Your task to perform on an android device: check google app version Image 0: 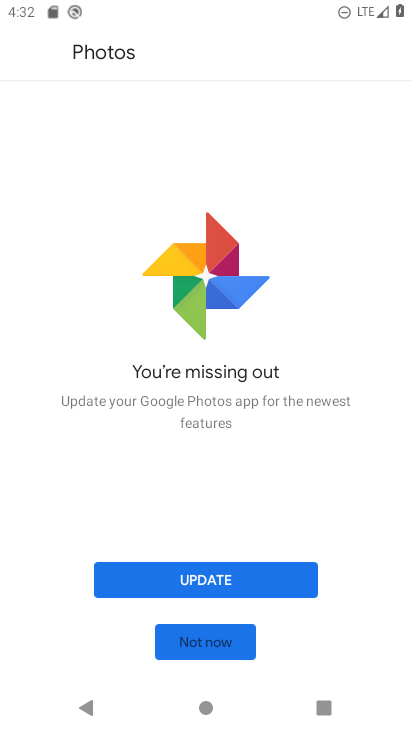
Step 0: press home button
Your task to perform on an android device: check google app version Image 1: 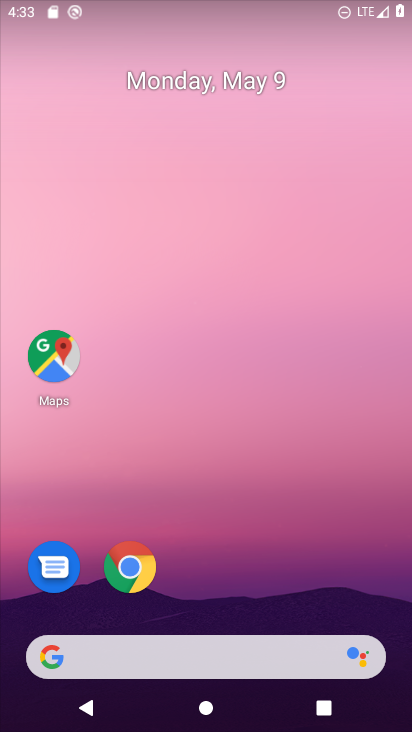
Step 1: drag from (224, 596) to (275, 113)
Your task to perform on an android device: check google app version Image 2: 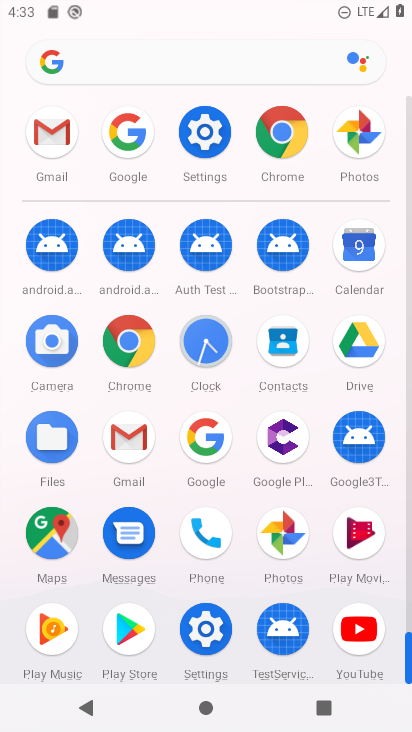
Step 2: click (207, 451)
Your task to perform on an android device: check google app version Image 3: 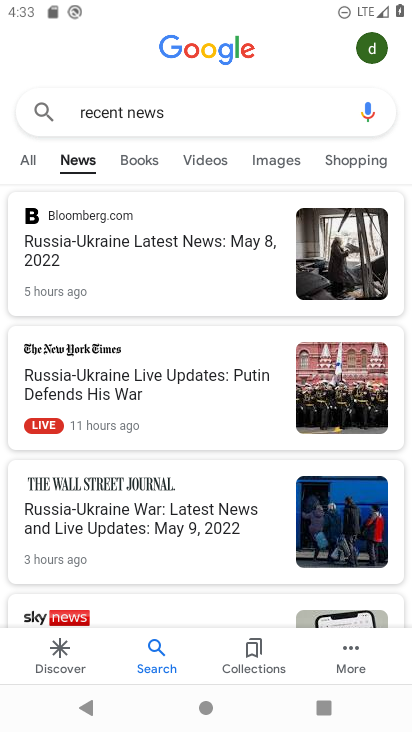
Step 3: click (349, 652)
Your task to perform on an android device: check google app version Image 4: 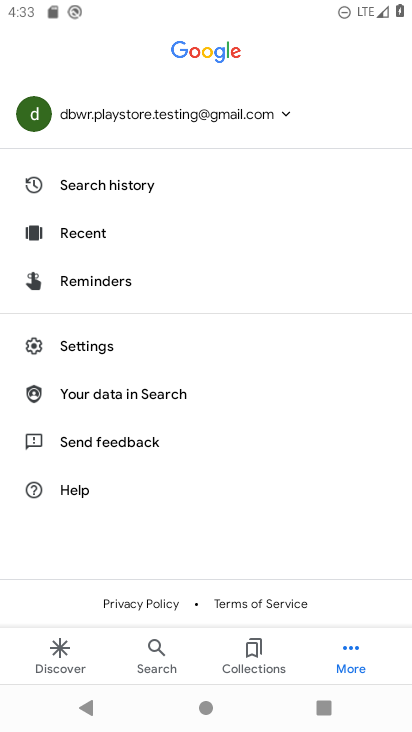
Step 4: click (94, 349)
Your task to perform on an android device: check google app version Image 5: 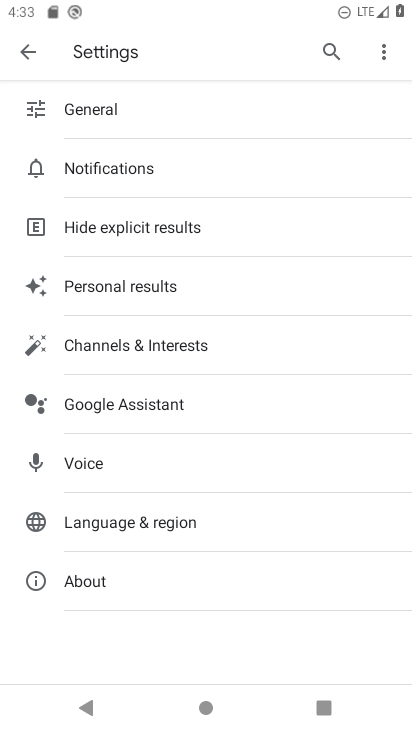
Step 5: click (116, 590)
Your task to perform on an android device: check google app version Image 6: 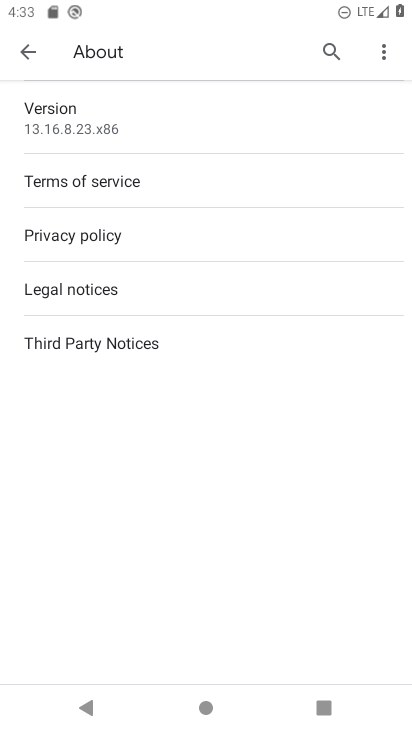
Step 6: click (110, 112)
Your task to perform on an android device: check google app version Image 7: 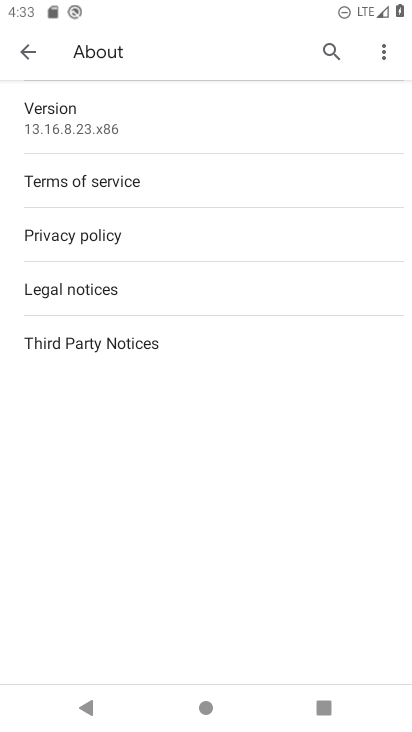
Step 7: task complete